Your task to perform on an android device: find photos in the google photos app Image 0: 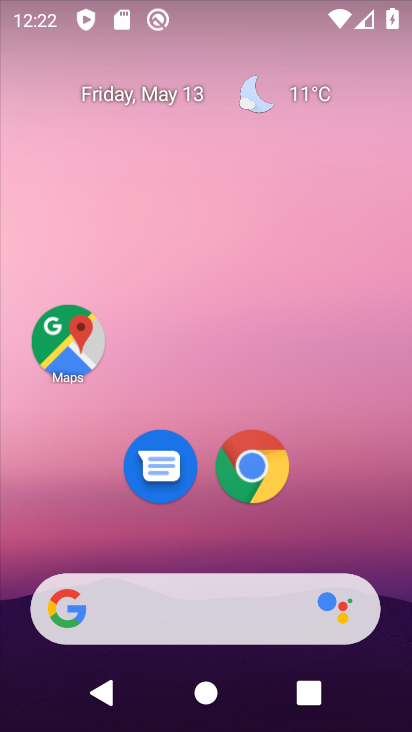
Step 0: drag from (357, 480) to (259, 125)
Your task to perform on an android device: find photos in the google photos app Image 1: 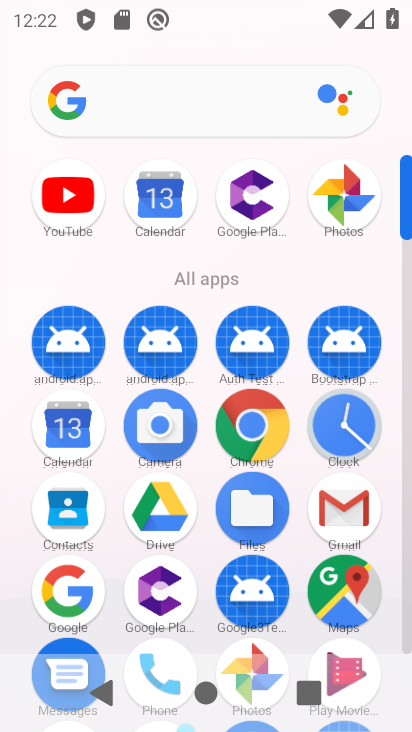
Step 1: click (339, 197)
Your task to perform on an android device: find photos in the google photos app Image 2: 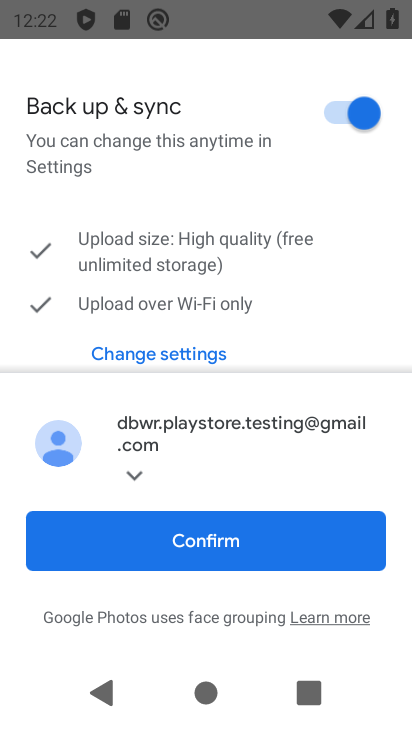
Step 2: click (190, 571)
Your task to perform on an android device: find photos in the google photos app Image 3: 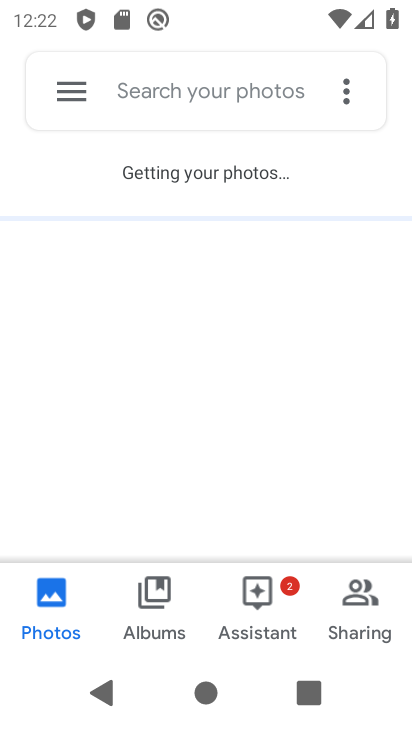
Step 3: task complete